Your task to perform on an android device: remove spam from my inbox in the gmail app Image 0: 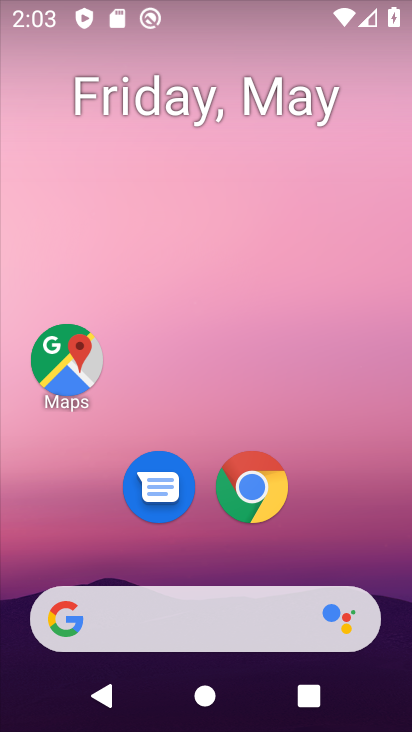
Step 0: drag from (165, 532) to (213, 23)
Your task to perform on an android device: remove spam from my inbox in the gmail app Image 1: 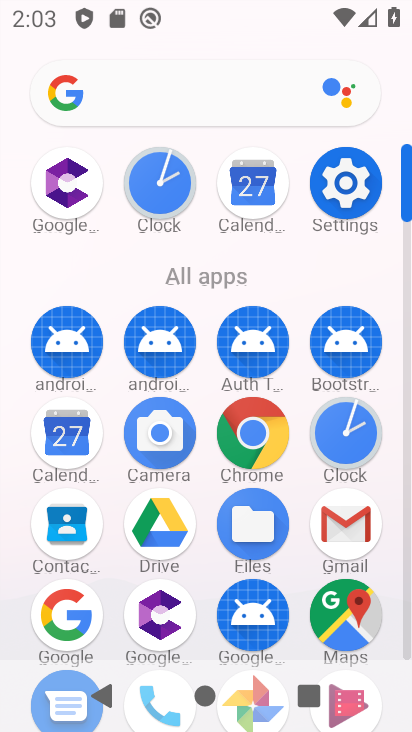
Step 1: click (344, 525)
Your task to perform on an android device: remove spam from my inbox in the gmail app Image 2: 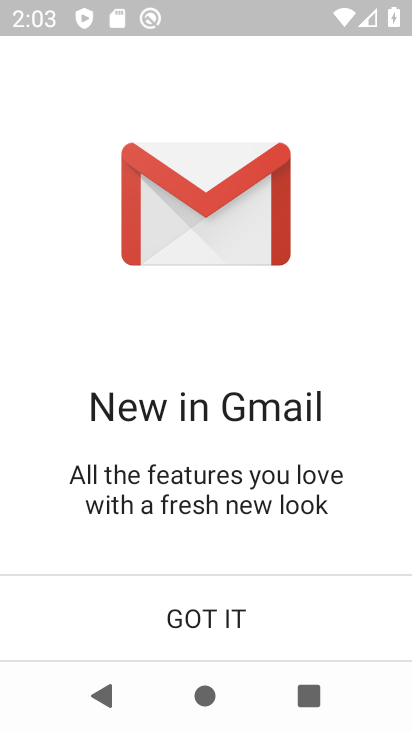
Step 2: click (192, 597)
Your task to perform on an android device: remove spam from my inbox in the gmail app Image 3: 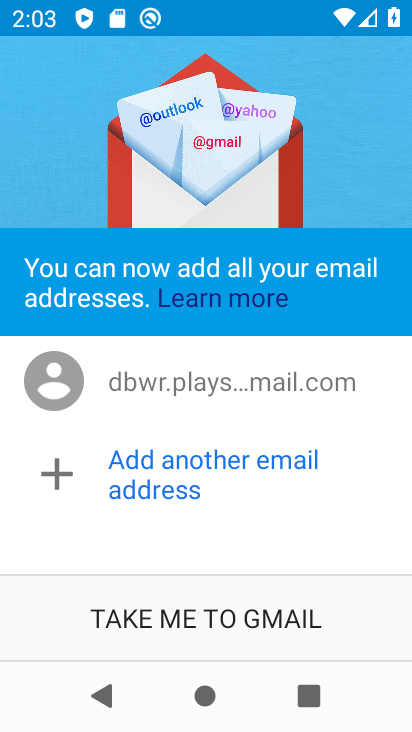
Step 3: click (185, 609)
Your task to perform on an android device: remove spam from my inbox in the gmail app Image 4: 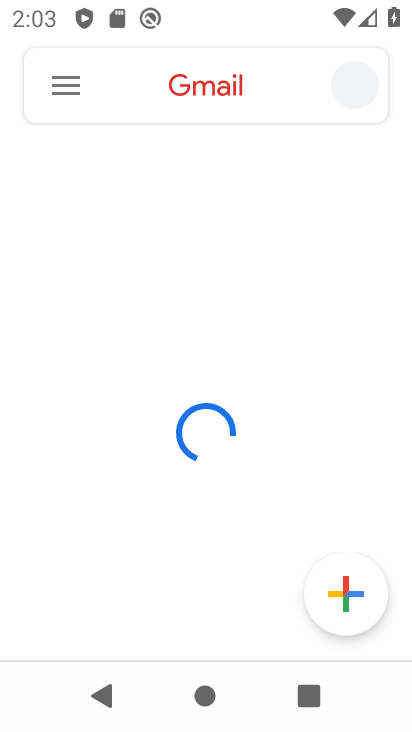
Step 4: click (54, 90)
Your task to perform on an android device: remove spam from my inbox in the gmail app Image 5: 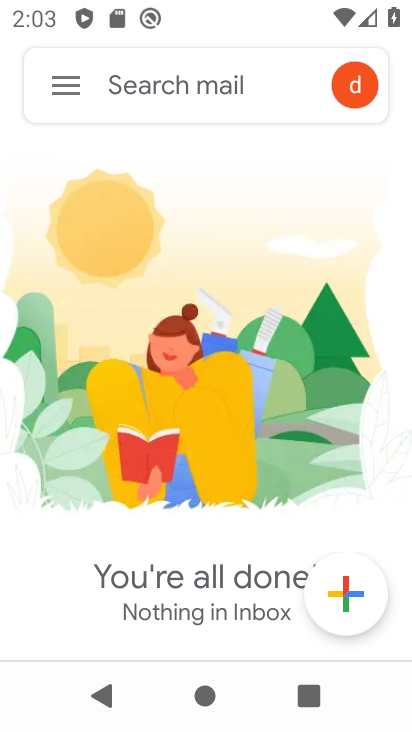
Step 5: click (63, 91)
Your task to perform on an android device: remove spam from my inbox in the gmail app Image 6: 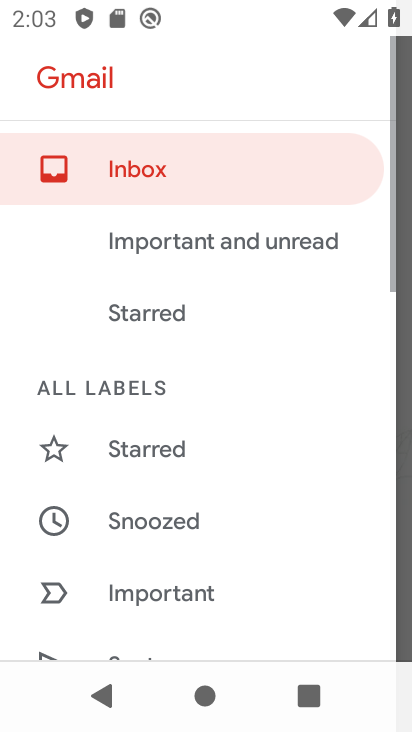
Step 6: drag from (218, 539) to (292, 44)
Your task to perform on an android device: remove spam from my inbox in the gmail app Image 7: 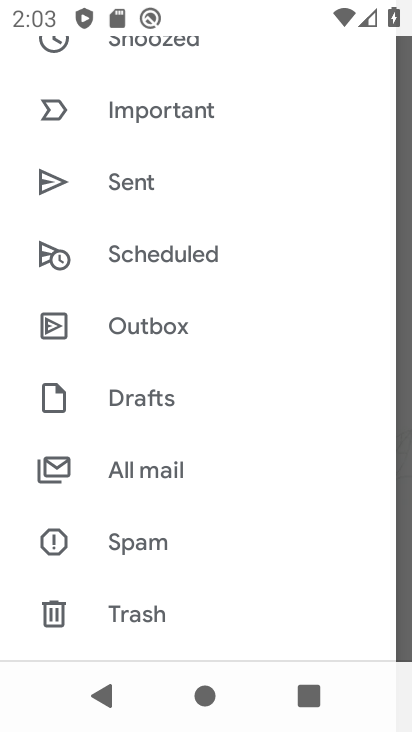
Step 7: click (166, 534)
Your task to perform on an android device: remove spam from my inbox in the gmail app Image 8: 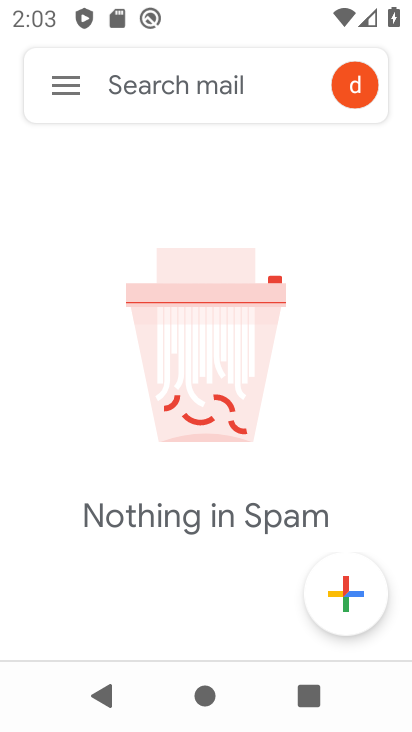
Step 8: task complete